Your task to perform on an android device: toggle data saver in the chrome app Image 0: 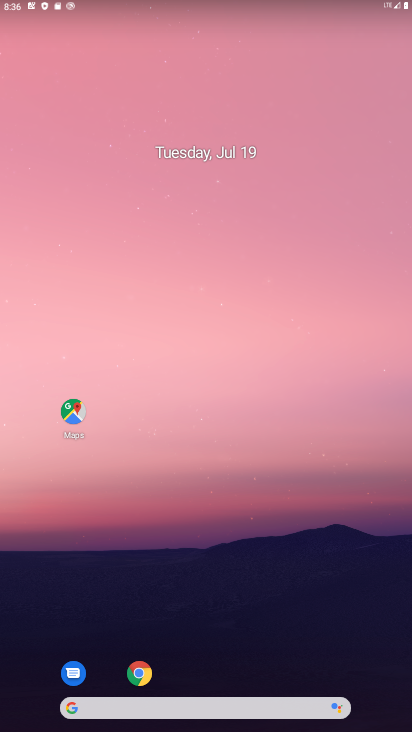
Step 0: drag from (381, 683) to (187, 48)
Your task to perform on an android device: toggle data saver in the chrome app Image 1: 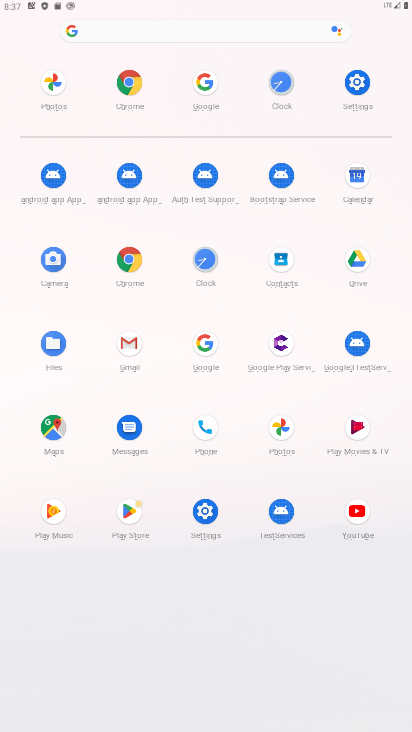
Step 1: click (133, 265)
Your task to perform on an android device: toggle data saver in the chrome app Image 2: 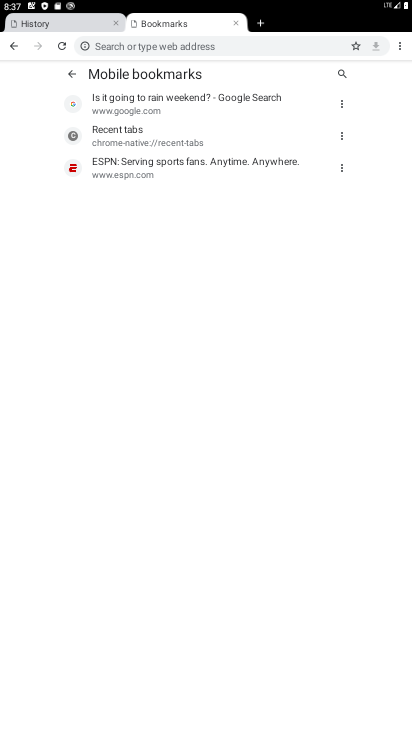
Step 2: click (398, 43)
Your task to perform on an android device: toggle data saver in the chrome app Image 3: 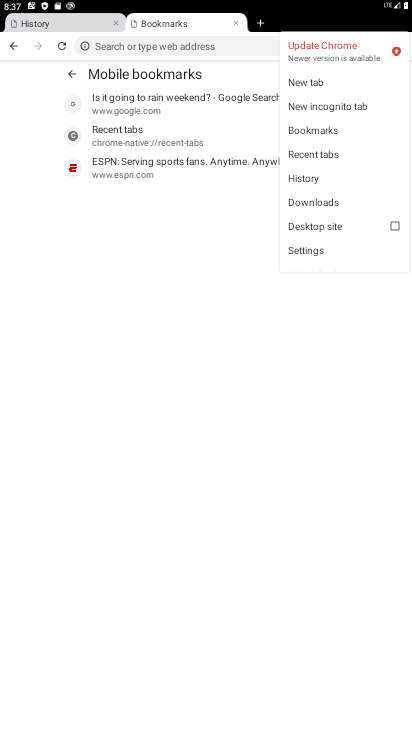
Step 3: click (309, 240)
Your task to perform on an android device: toggle data saver in the chrome app Image 4: 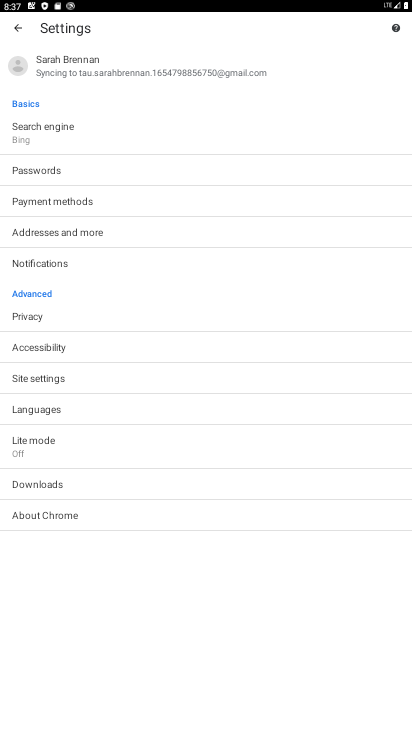
Step 4: click (45, 448)
Your task to perform on an android device: toggle data saver in the chrome app Image 5: 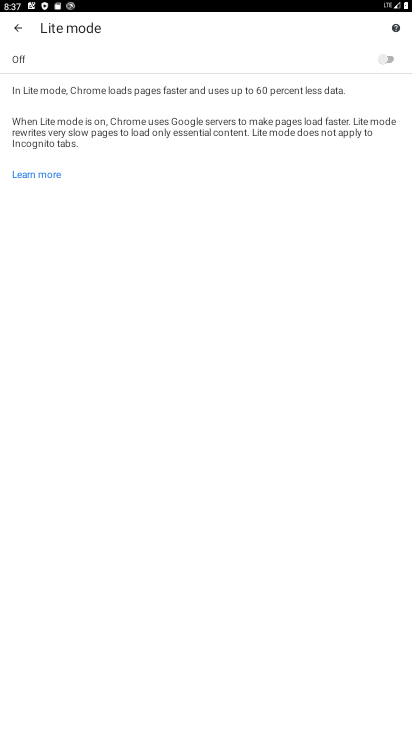
Step 5: click (377, 53)
Your task to perform on an android device: toggle data saver in the chrome app Image 6: 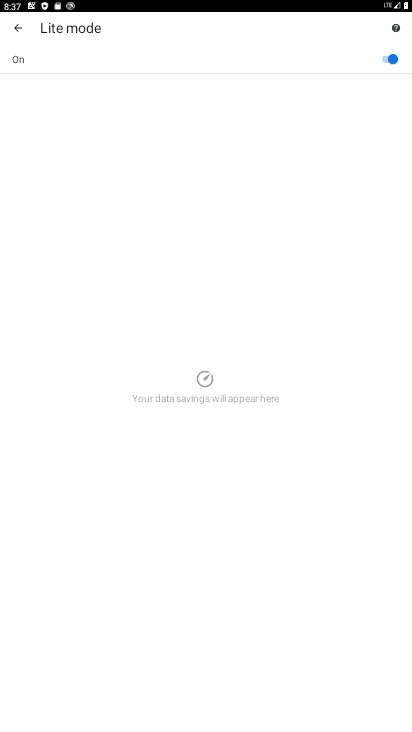
Step 6: task complete